Your task to perform on an android device: turn on translation in the chrome app Image 0: 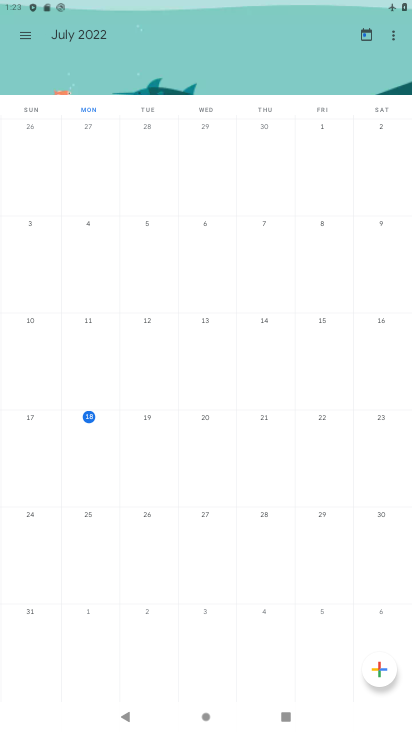
Step 0: press home button
Your task to perform on an android device: turn on translation in the chrome app Image 1: 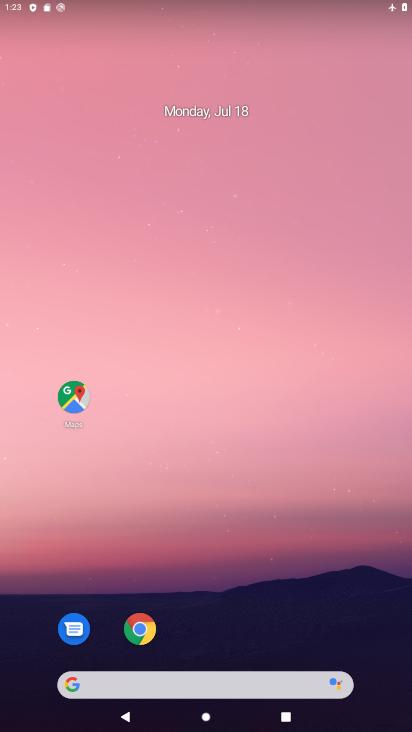
Step 1: drag from (205, 1) to (195, 384)
Your task to perform on an android device: turn on translation in the chrome app Image 2: 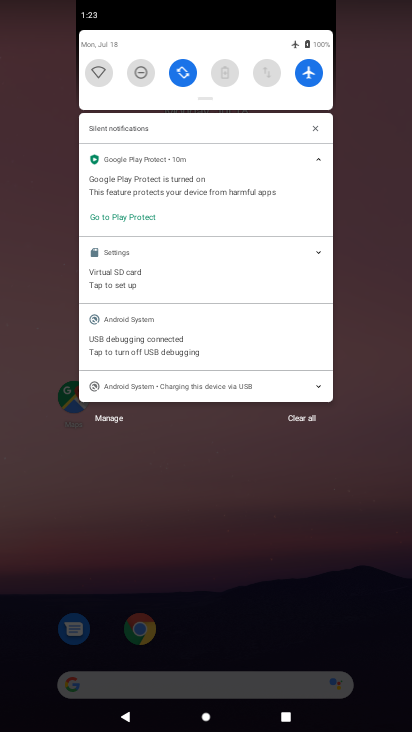
Step 2: click (231, 467)
Your task to perform on an android device: turn on translation in the chrome app Image 3: 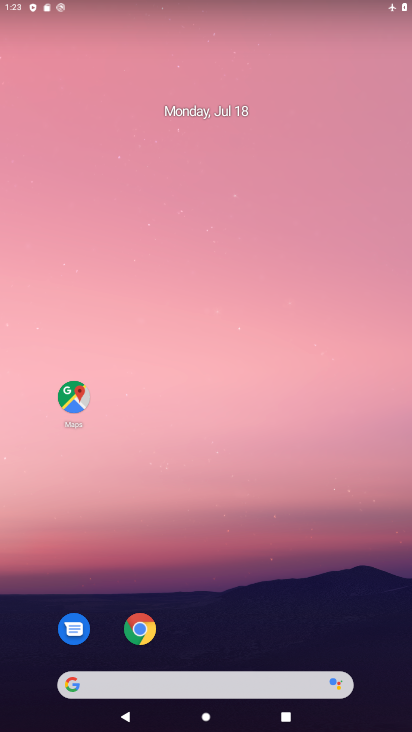
Step 3: click (143, 632)
Your task to perform on an android device: turn on translation in the chrome app Image 4: 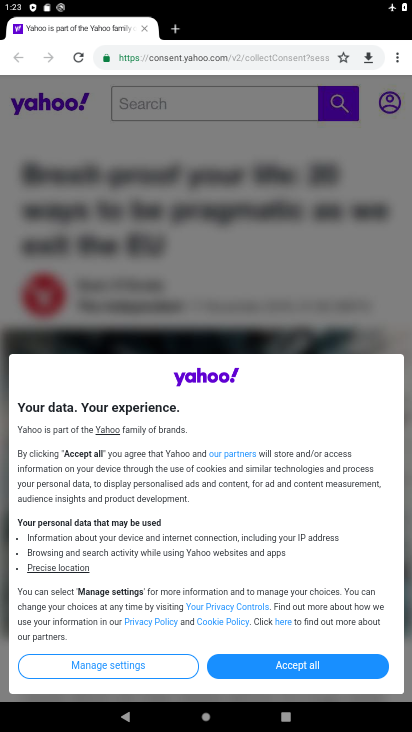
Step 4: click (395, 54)
Your task to perform on an android device: turn on translation in the chrome app Image 5: 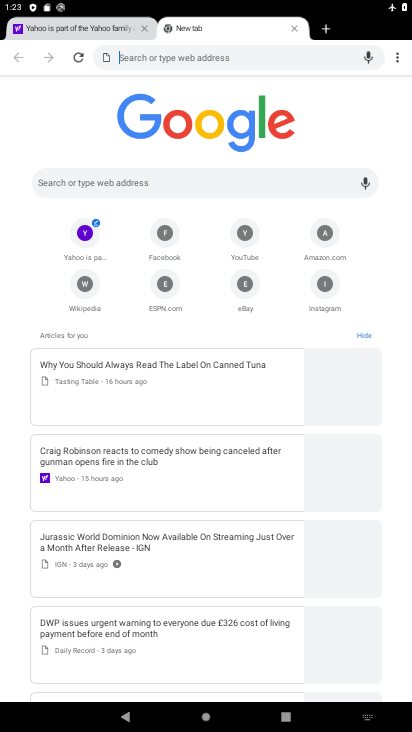
Step 5: click (395, 54)
Your task to perform on an android device: turn on translation in the chrome app Image 6: 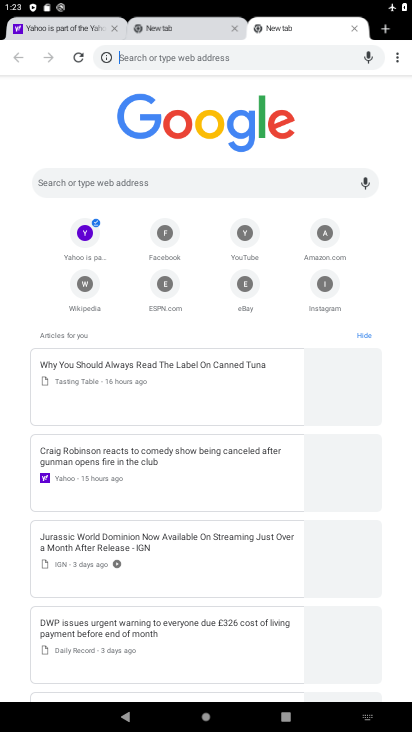
Step 6: click (395, 56)
Your task to perform on an android device: turn on translation in the chrome app Image 7: 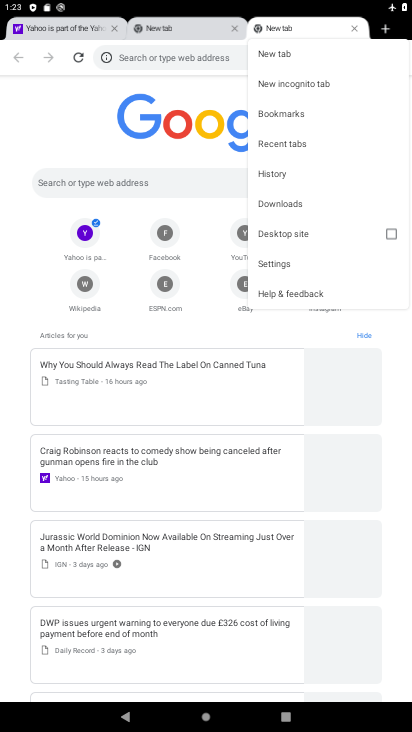
Step 7: click (284, 263)
Your task to perform on an android device: turn on translation in the chrome app Image 8: 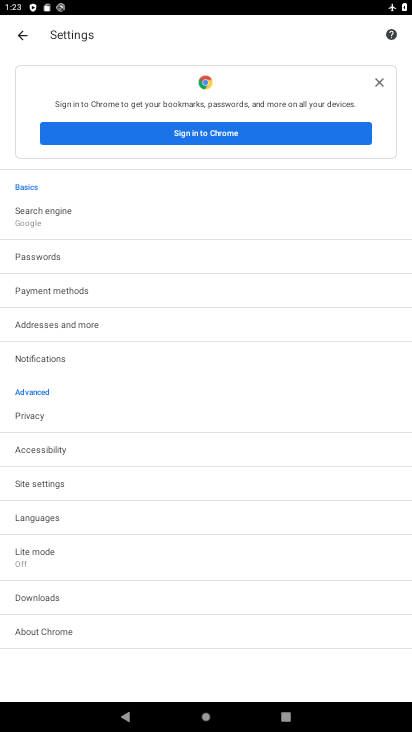
Step 8: click (72, 289)
Your task to perform on an android device: turn on translation in the chrome app Image 9: 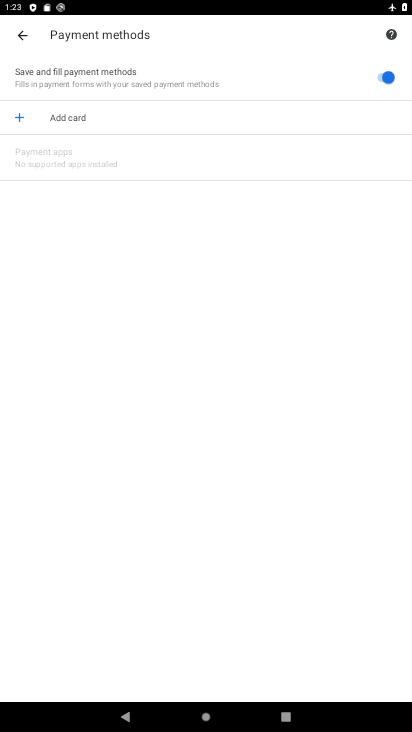
Step 9: task complete